Your task to perform on an android device: Is it going to rain tomorrow? Image 0: 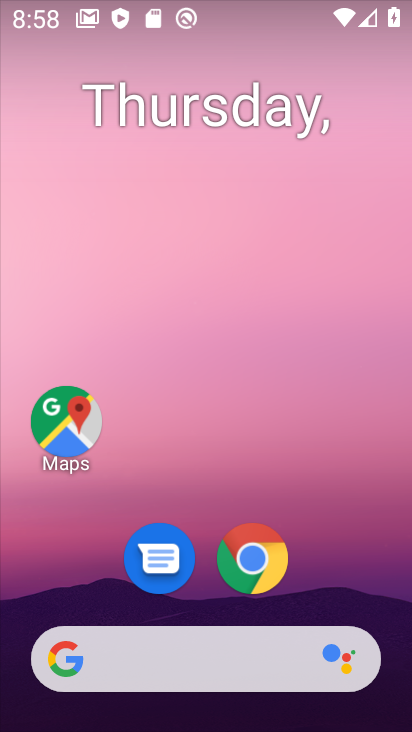
Step 0: drag from (5, 117) to (401, 179)
Your task to perform on an android device: Is it going to rain tomorrow? Image 1: 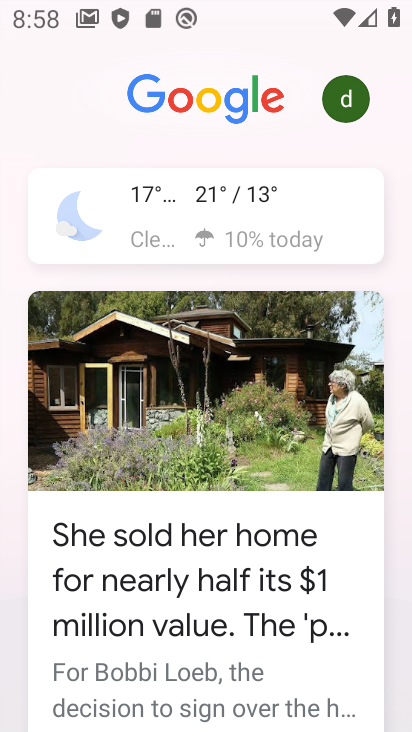
Step 1: click (193, 214)
Your task to perform on an android device: Is it going to rain tomorrow? Image 2: 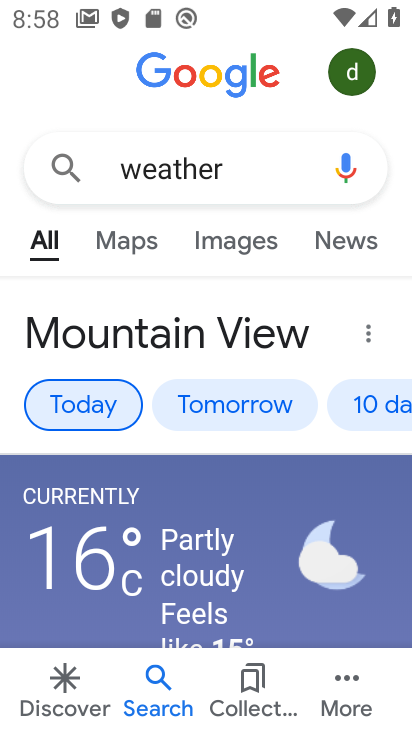
Step 2: click (232, 410)
Your task to perform on an android device: Is it going to rain tomorrow? Image 3: 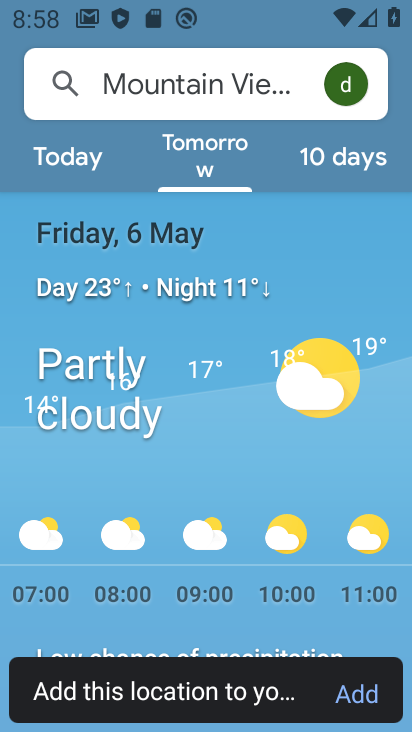
Step 3: drag from (268, 574) to (275, 357)
Your task to perform on an android device: Is it going to rain tomorrow? Image 4: 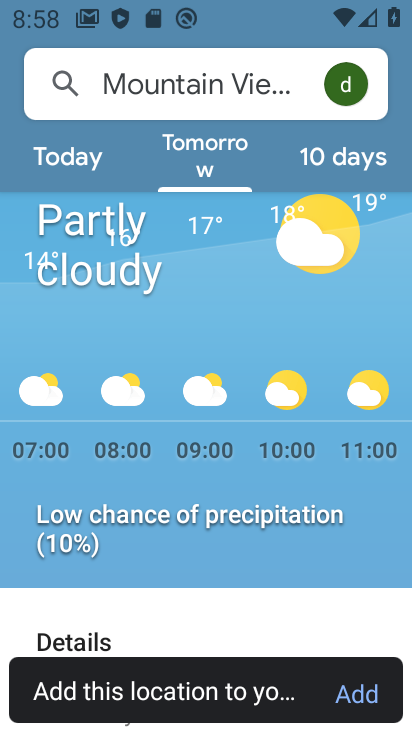
Step 4: drag from (295, 384) to (148, 371)
Your task to perform on an android device: Is it going to rain tomorrow? Image 5: 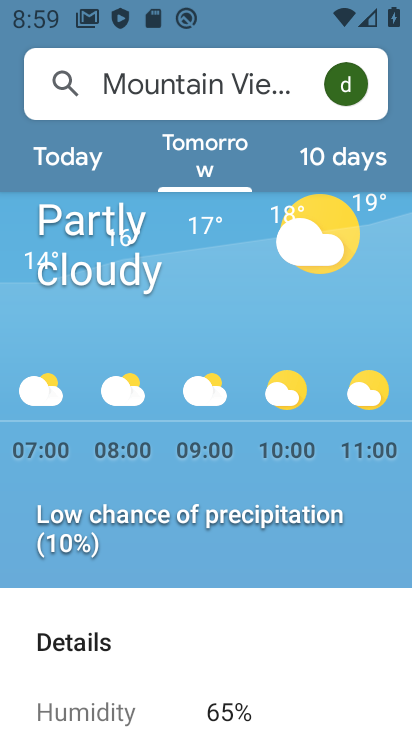
Step 5: drag from (117, 610) to (188, 600)
Your task to perform on an android device: Is it going to rain tomorrow? Image 6: 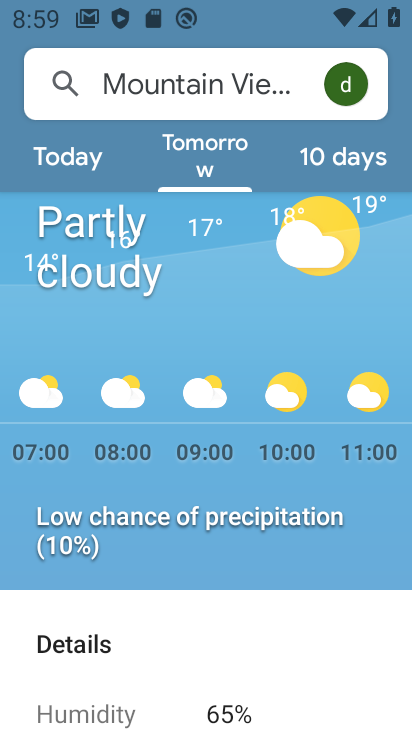
Step 6: drag from (356, 388) to (88, 375)
Your task to perform on an android device: Is it going to rain tomorrow? Image 7: 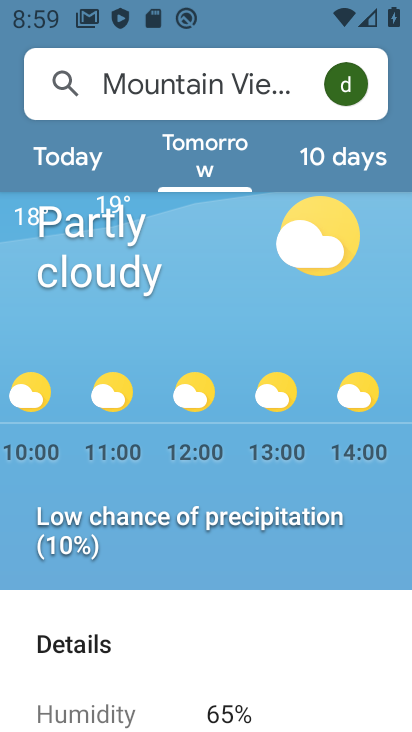
Step 7: drag from (290, 388) to (61, 371)
Your task to perform on an android device: Is it going to rain tomorrow? Image 8: 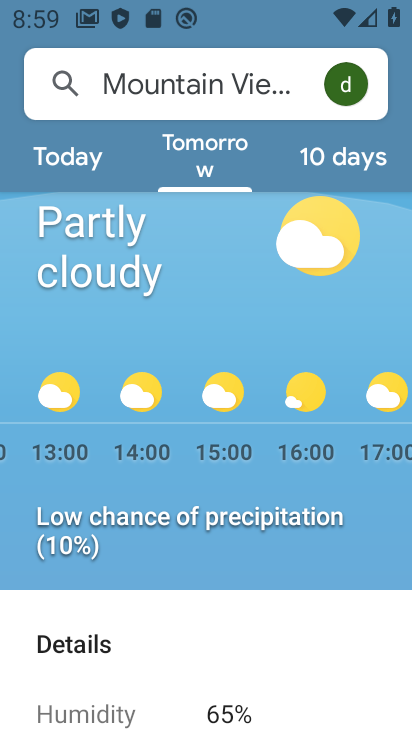
Step 8: click (363, 400)
Your task to perform on an android device: Is it going to rain tomorrow? Image 9: 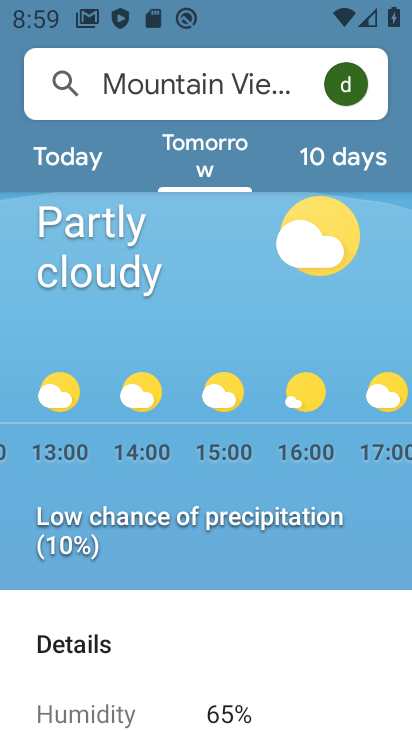
Step 9: task complete